Your task to perform on an android device: show emergency info Image 0: 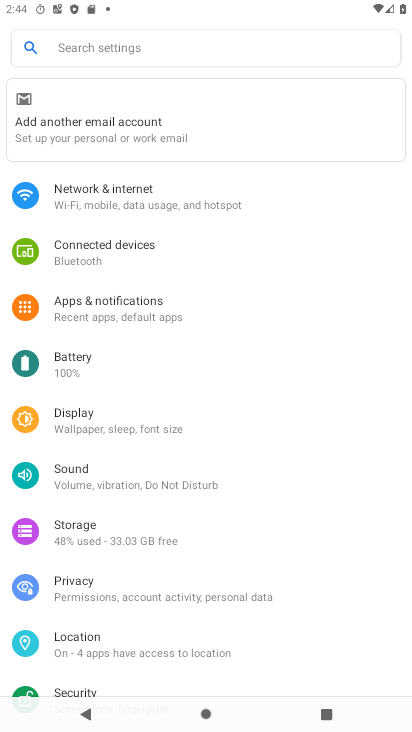
Step 0: drag from (159, 595) to (234, 49)
Your task to perform on an android device: show emergency info Image 1: 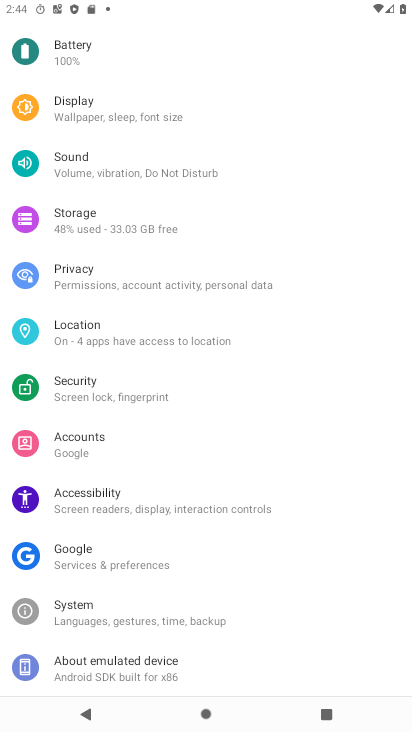
Step 1: click (127, 665)
Your task to perform on an android device: show emergency info Image 2: 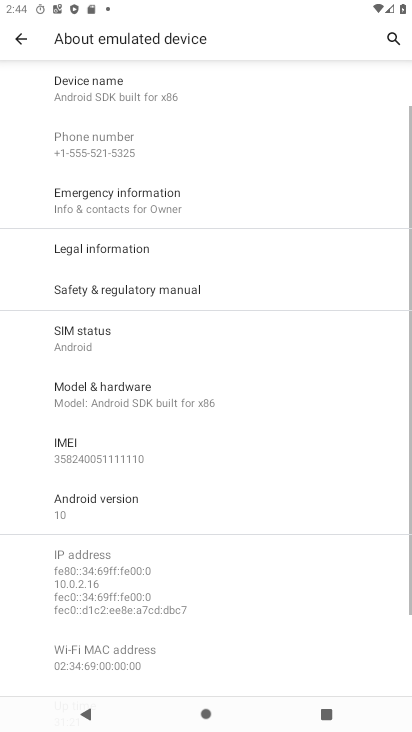
Step 2: click (158, 204)
Your task to perform on an android device: show emergency info Image 3: 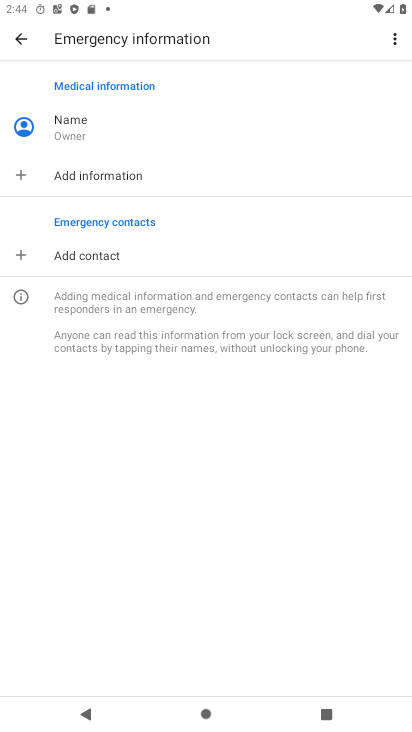
Step 3: task complete